Your task to perform on an android device: When is my next meeting? Image 0: 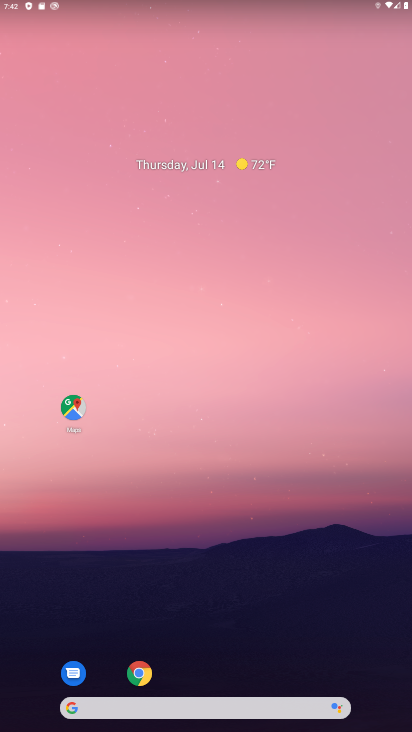
Step 0: drag from (186, 710) to (320, 174)
Your task to perform on an android device: When is my next meeting? Image 1: 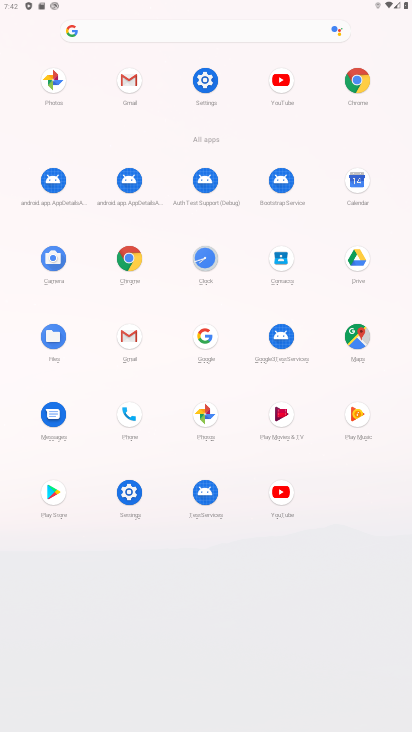
Step 1: click (368, 189)
Your task to perform on an android device: When is my next meeting? Image 2: 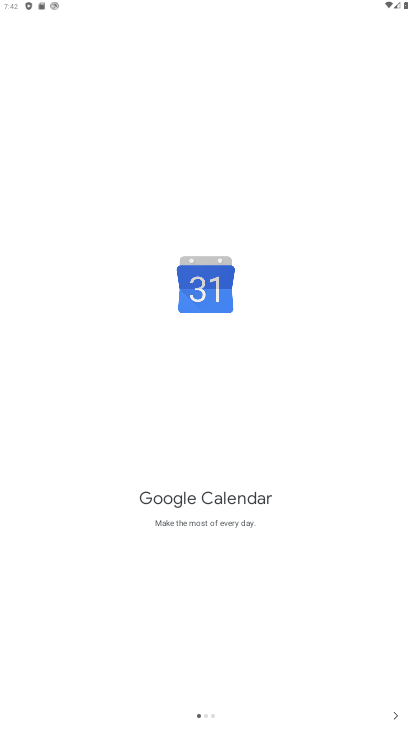
Step 2: click (395, 717)
Your task to perform on an android device: When is my next meeting? Image 3: 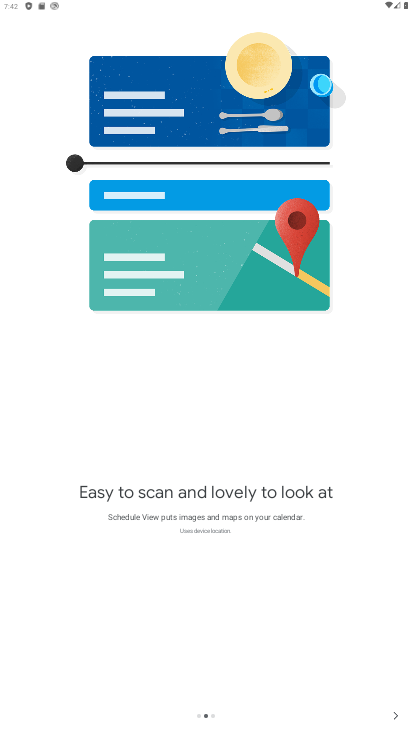
Step 3: click (395, 717)
Your task to perform on an android device: When is my next meeting? Image 4: 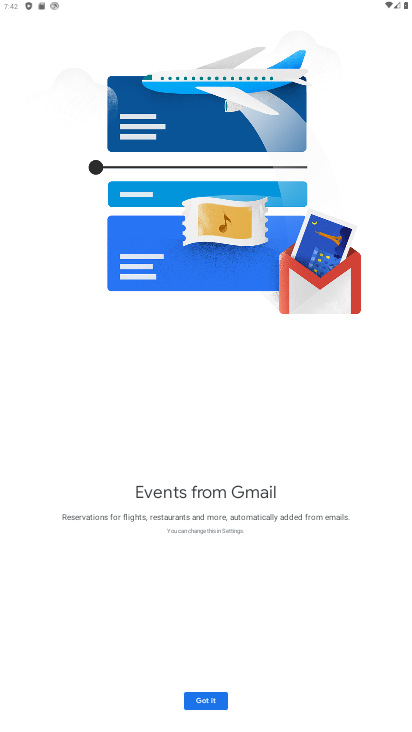
Step 4: click (395, 713)
Your task to perform on an android device: When is my next meeting? Image 5: 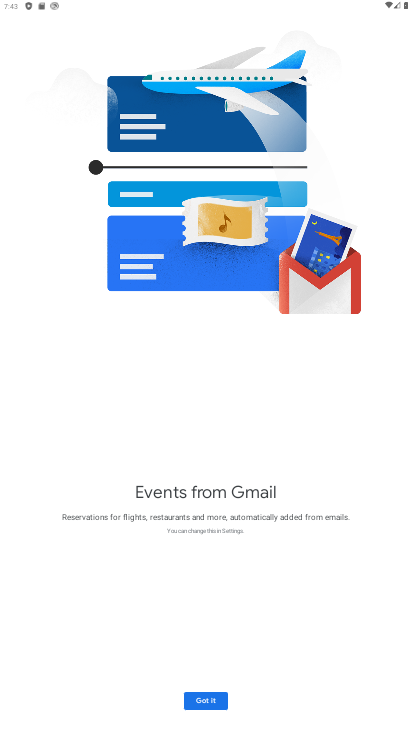
Step 5: click (213, 692)
Your task to perform on an android device: When is my next meeting? Image 6: 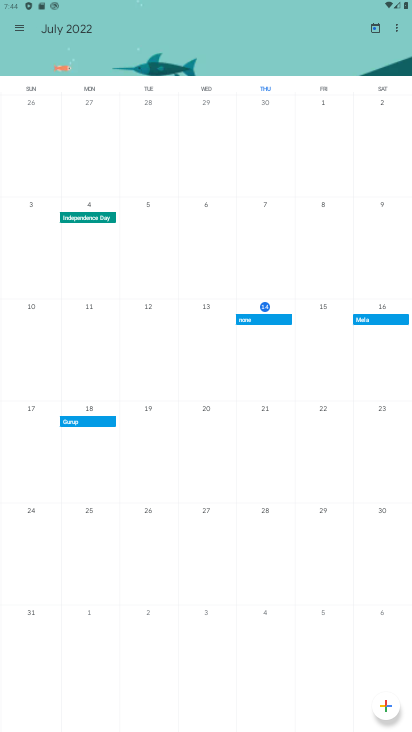
Step 6: click (268, 304)
Your task to perform on an android device: When is my next meeting? Image 7: 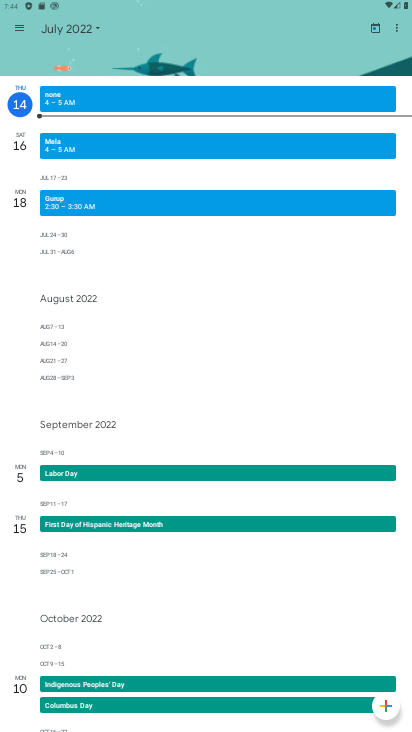
Step 7: task complete